Your task to perform on an android device: See recent photos Image 0: 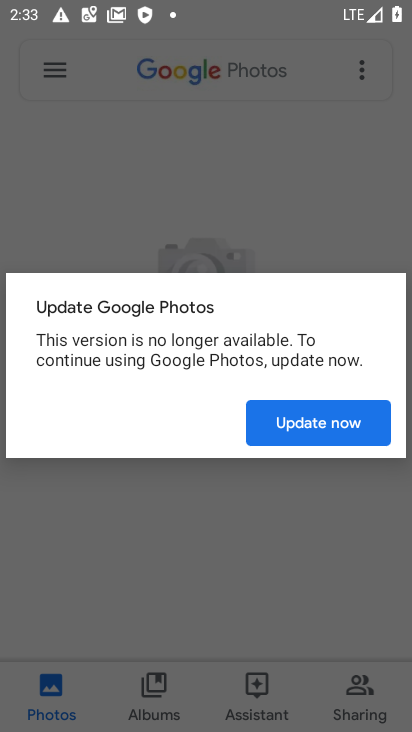
Step 0: press home button
Your task to perform on an android device: See recent photos Image 1: 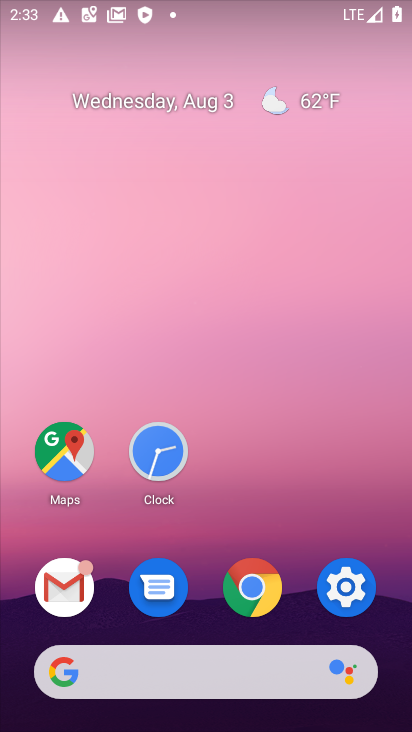
Step 1: drag from (208, 523) to (191, 144)
Your task to perform on an android device: See recent photos Image 2: 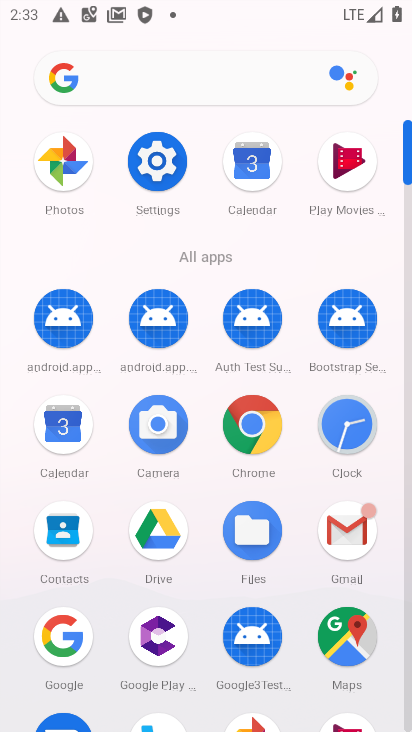
Step 2: click (61, 164)
Your task to perform on an android device: See recent photos Image 3: 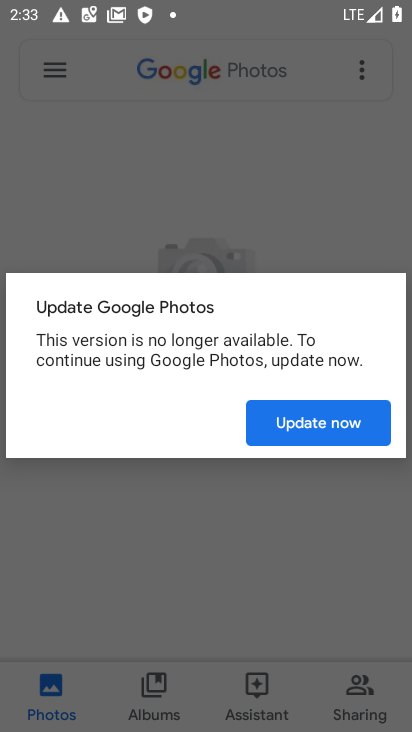
Step 3: click (308, 418)
Your task to perform on an android device: See recent photos Image 4: 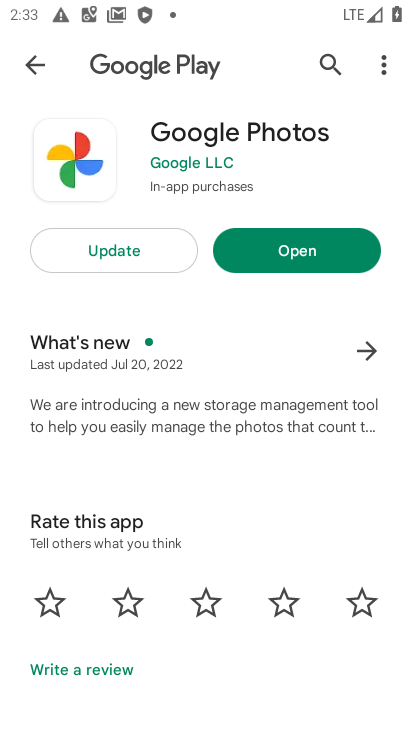
Step 4: click (139, 245)
Your task to perform on an android device: See recent photos Image 5: 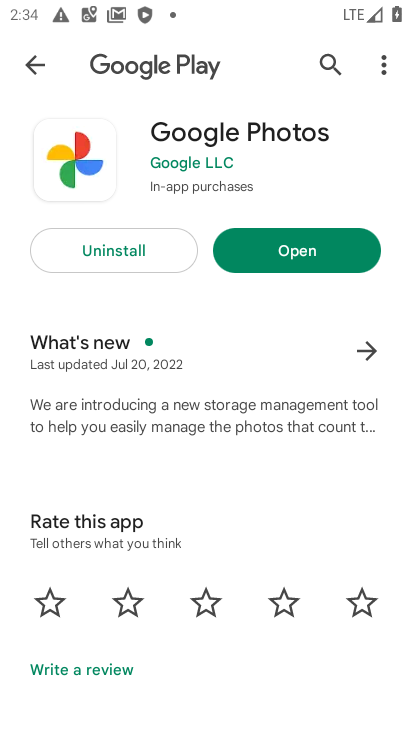
Step 5: click (279, 248)
Your task to perform on an android device: See recent photos Image 6: 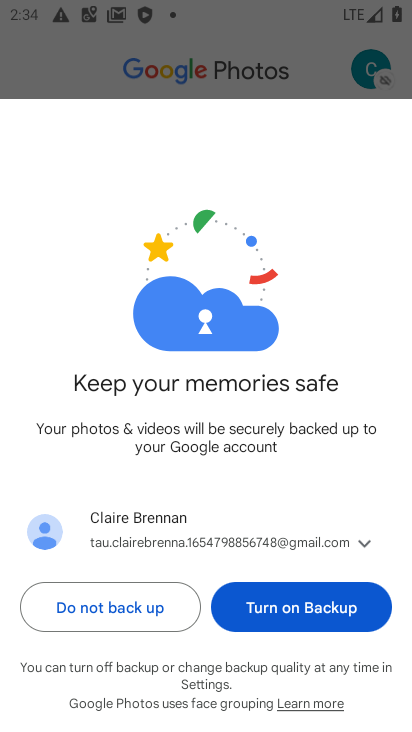
Step 6: click (148, 608)
Your task to perform on an android device: See recent photos Image 7: 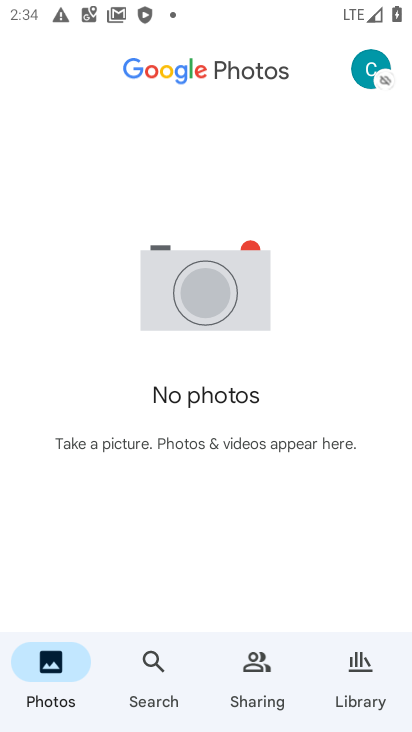
Step 7: task complete